Your task to perform on an android device: Search for vegetarian restaurants on Maps Image 0: 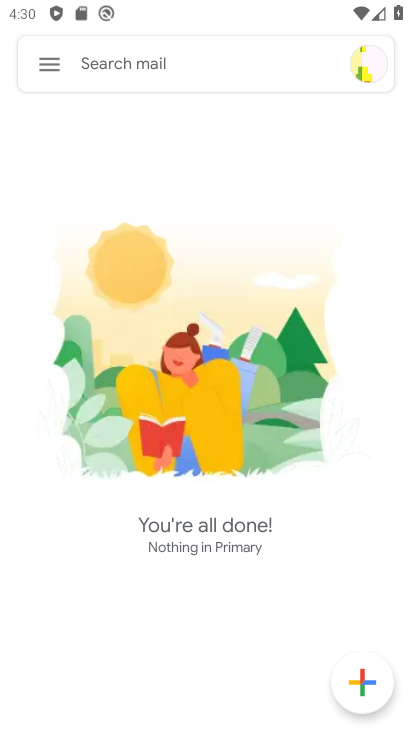
Step 0: press home button
Your task to perform on an android device: Search for vegetarian restaurants on Maps Image 1: 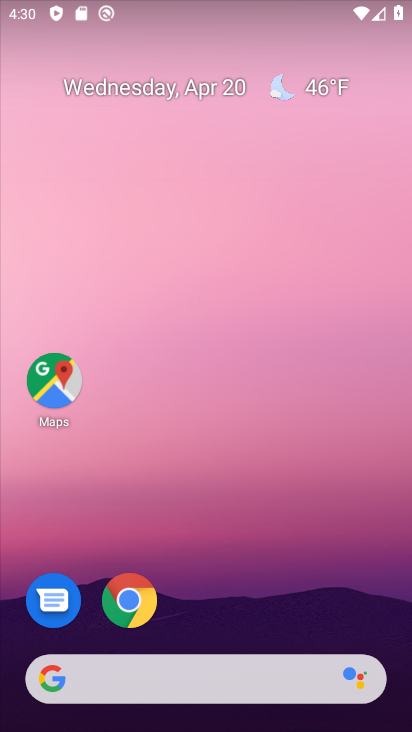
Step 1: click (54, 376)
Your task to perform on an android device: Search for vegetarian restaurants on Maps Image 2: 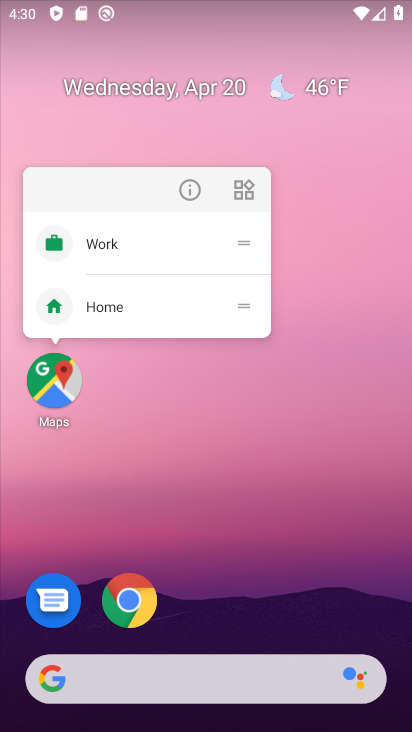
Step 2: click (66, 500)
Your task to perform on an android device: Search for vegetarian restaurants on Maps Image 3: 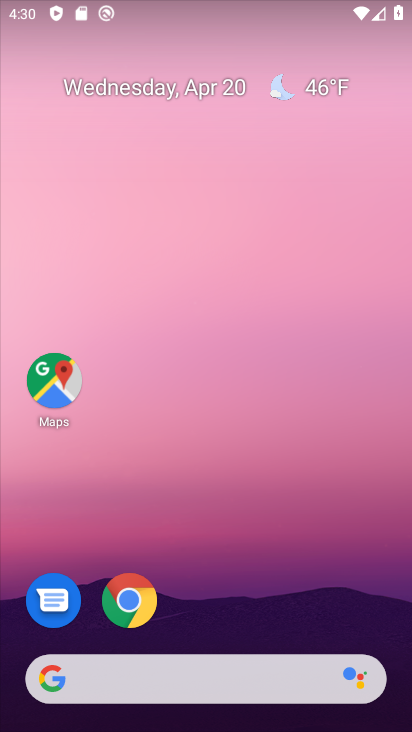
Step 3: click (52, 371)
Your task to perform on an android device: Search for vegetarian restaurants on Maps Image 4: 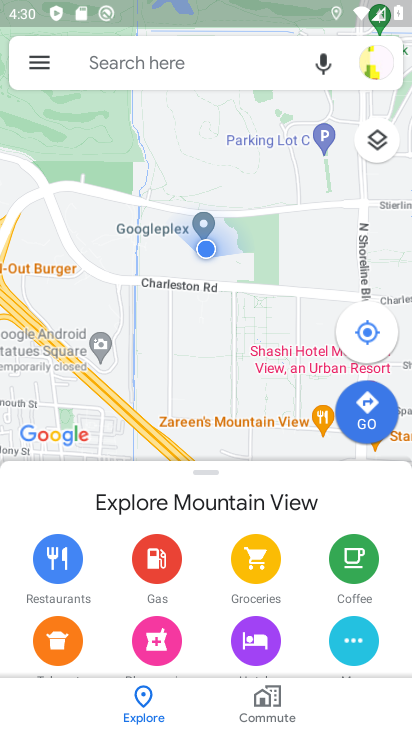
Step 4: click (31, 63)
Your task to perform on an android device: Search for vegetarian restaurants on Maps Image 5: 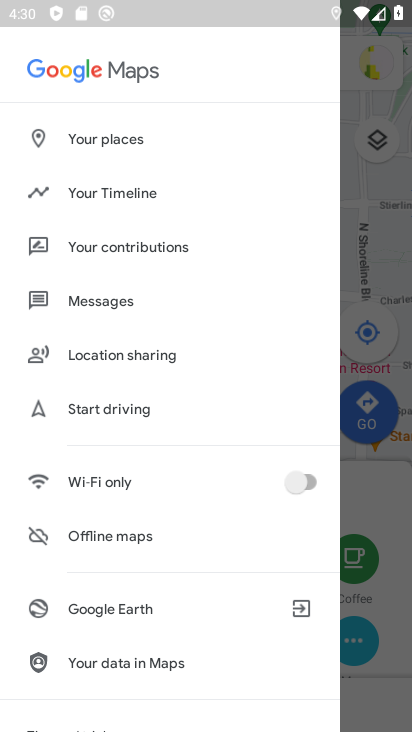
Step 5: click (368, 233)
Your task to perform on an android device: Search for vegetarian restaurants on Maps Image 6: 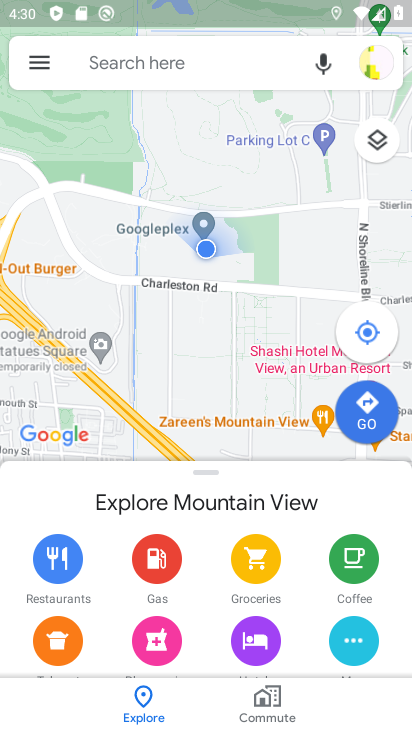
Step 6: click (150, 54)
Your task to perform on an android device: Search for vegetarian restaurants on Maps Image 7: 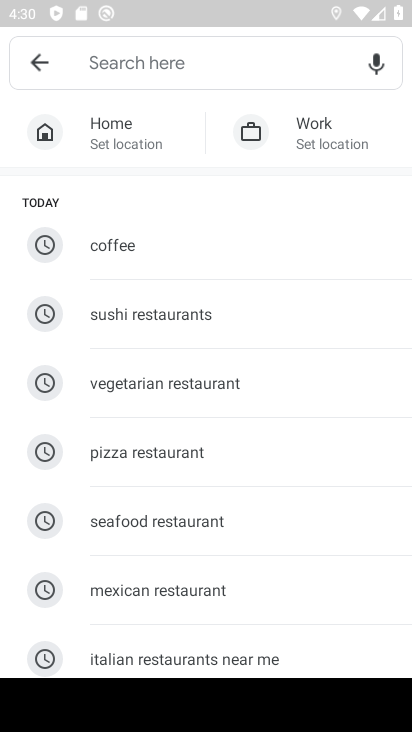
Step 7: click (256, 376)
Your task to perform on an android device: Search for vegetarian restaurants on Maps Image 8: 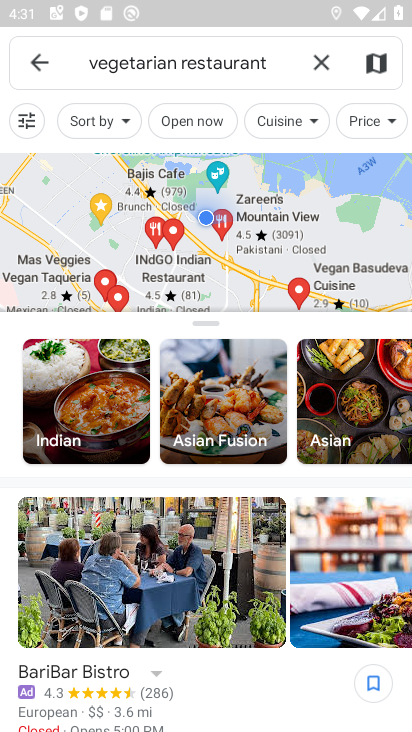
Step 8: task complete